Your task to perform on an android device: make emails show in primary in the gmail app Image 0: 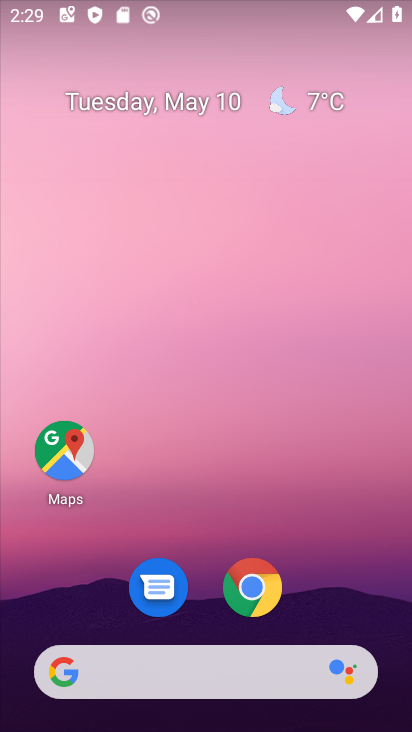
Step 0: drag from (315, 524) to (273, 1)
Your task to perform on an android device: make emails show in primary in the gmail app Image 1: 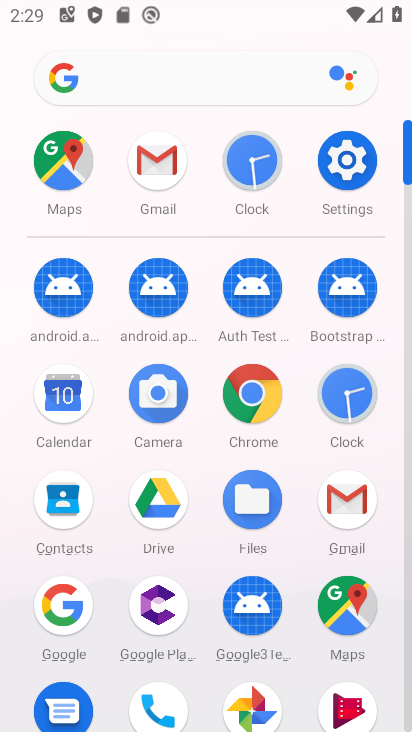
Step 1: click (346, 507)
Your task to perform on an android device: make emails show in primary in the gmail app Image 2: 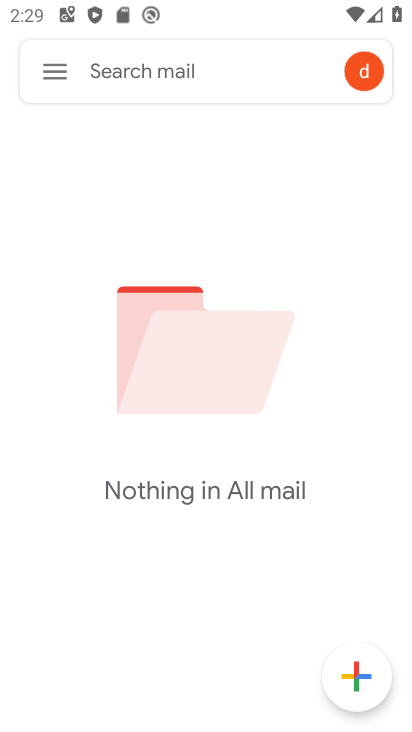
Step 2: click (69, 77)
Your task to perform on an android device: make emails show in primary in the gmail app Image 3: 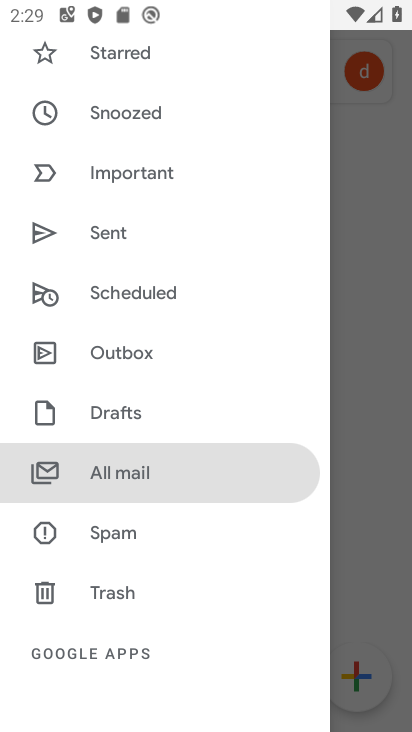
Step 3: drag from (151, 671) to (132, 355)
Your task to perform on an android device: make emails show in primary in the gmail app Image 4: 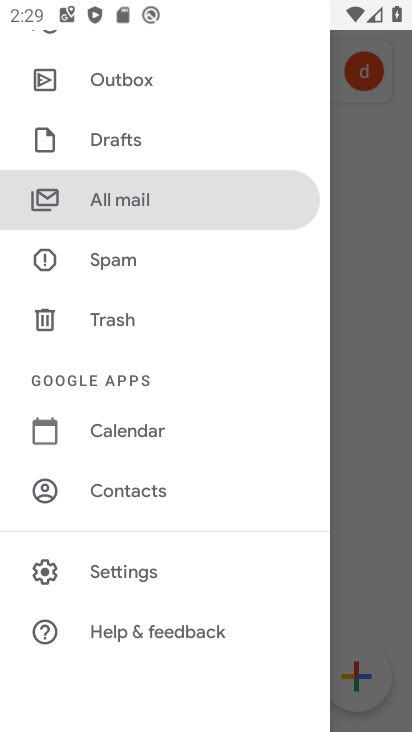
Step 4: click (130, 575)
Your task to perform on an android device: make emails show in primary in the gmail app Image 5: 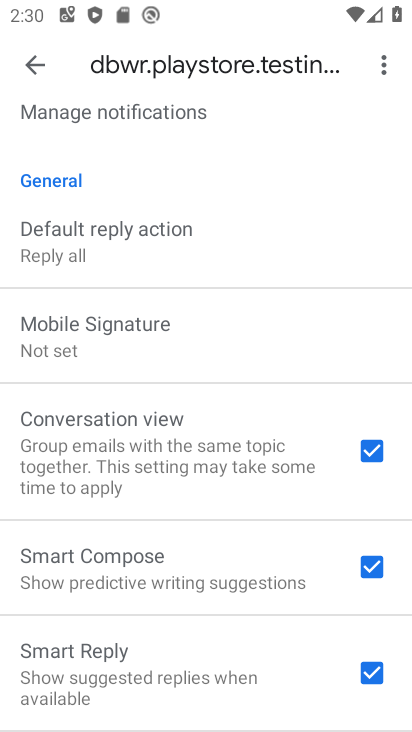
Step 5: drag from (158, 201) to (157, 563)
Your task to perform on an android device: make emails show in primary in the gmail app Image 6: 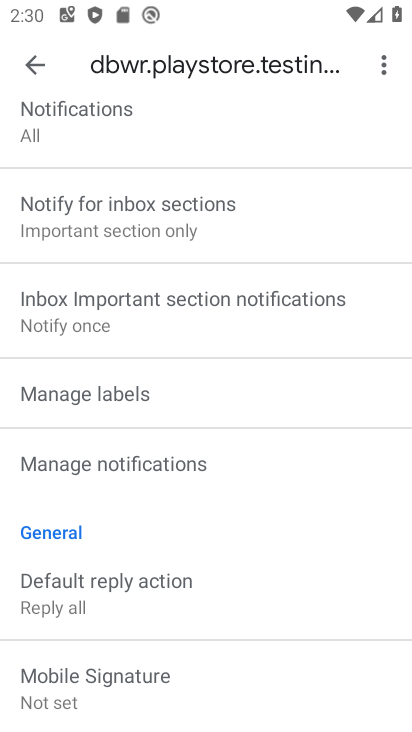
Step 6: drag from (166, 224) to (188, 526)
Your task to perform on an android device: make emails show in primary in the gmail app Image 7: 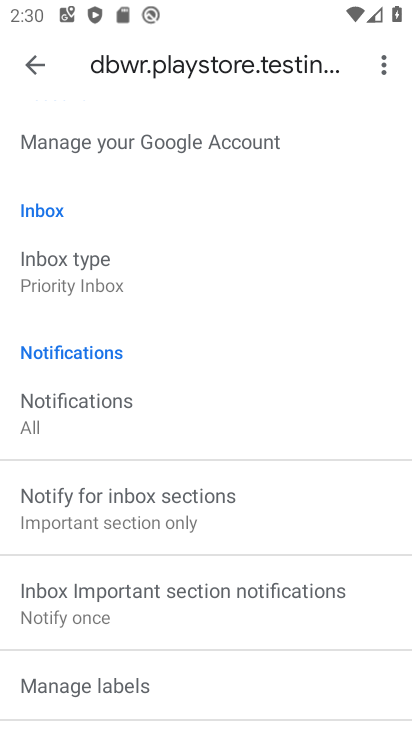
Step 7: drag from (157, 240) to (167, 347)
Your task to perform on an android device: make emails show in primary in the gmail app Image 8: 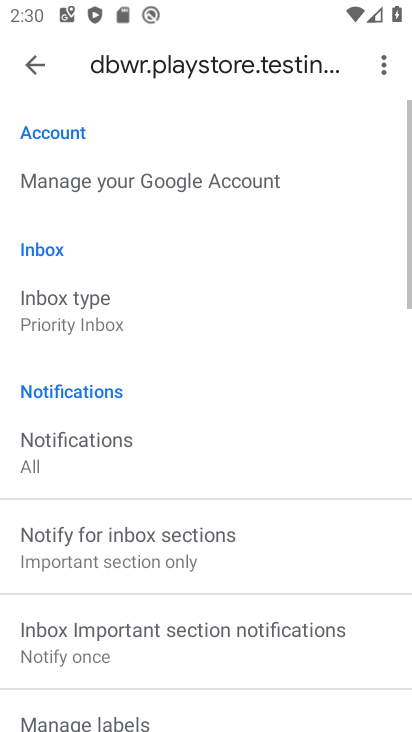
Step 8: click (112, 316)
Your task to perform on an android device: make emails show in primary in the gmail app Image 9: 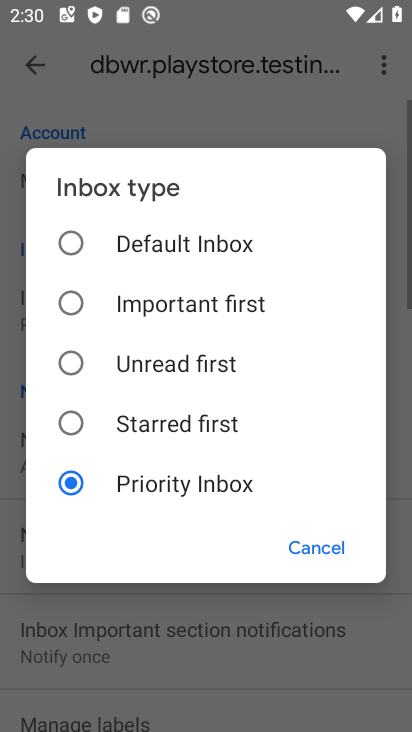
Step 9: click (104, 241)
Your task to perform on an android device: make emails show in primary in the gmail app Image 10: 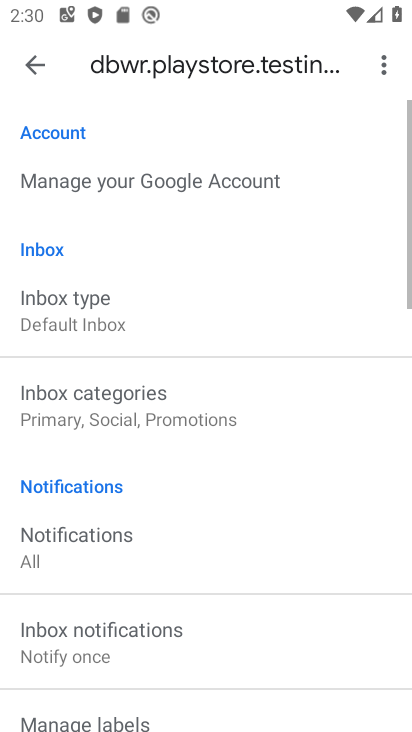
Step 10: click (143, 400)
Your task to perform on an android device: make emails show in primary in the gmail app Image 11: 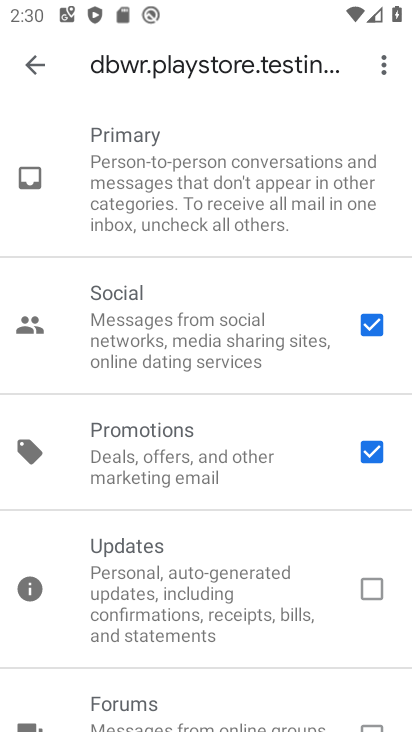
Step 11: click (376, 328)
Your task to perform on an android device: make emails show in primary in the gmail app Image 12: 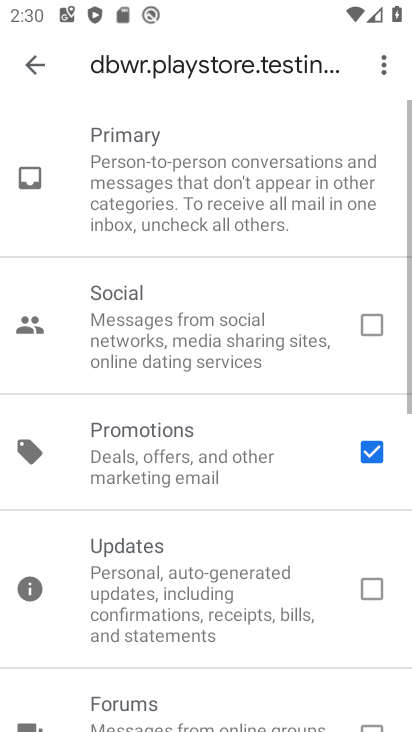
Step 12: click (377, 457)
Your task to perform on an android device: make emails show in primary in the gmail app Image 13: 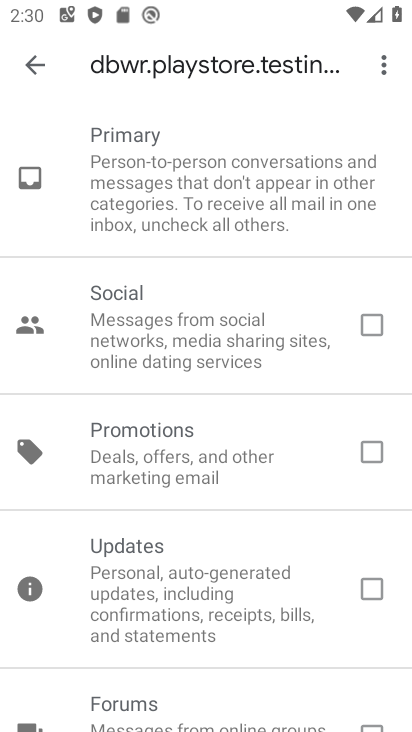
Step 13: task complete